Your task to perform on an android device: turn on airplane mode Image 0: 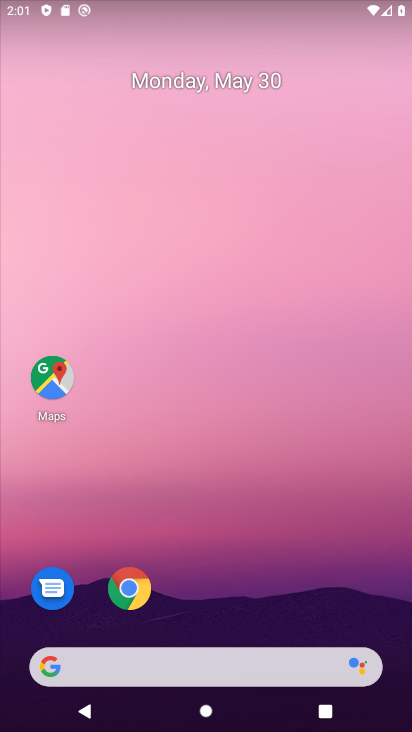
Step 0: drag from (224, 619) to (206, 185)
Your task to perform on an android device: turn on airplane mode Image 1: 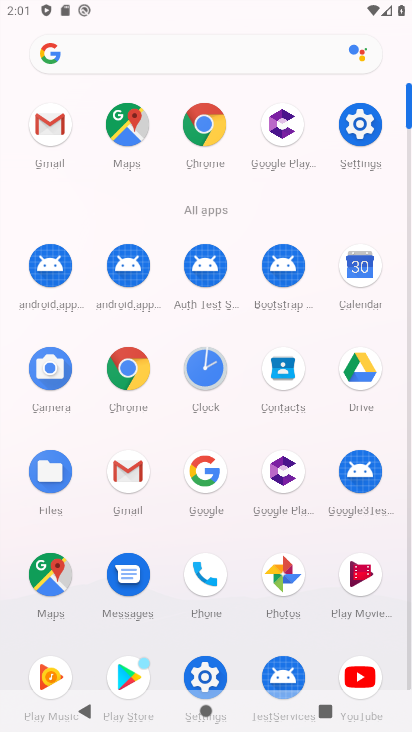
Step 1: click (363, 118)
Your task to perform on an android device: turn on airplane mode Image 2: 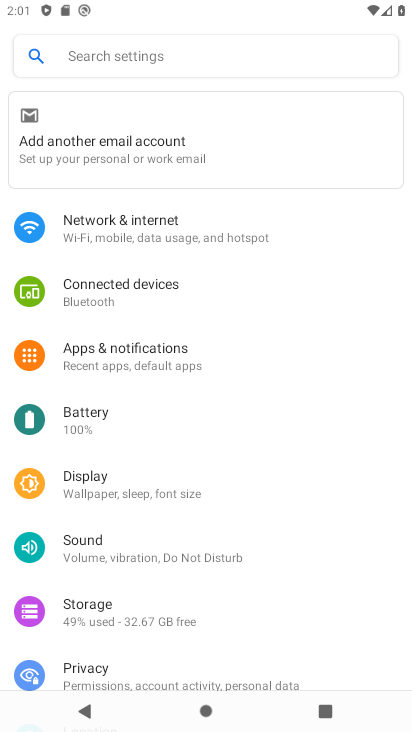
Step 2: click (137, 227)
Your task to perform on an android device: turn on airplane mode Image 3: 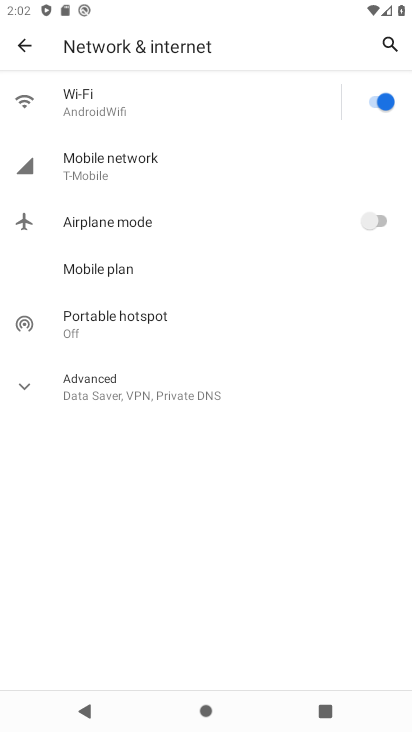
Step 3: click (364, 226)
Your task to perform on an android device: turn on airplane mode Image 4: 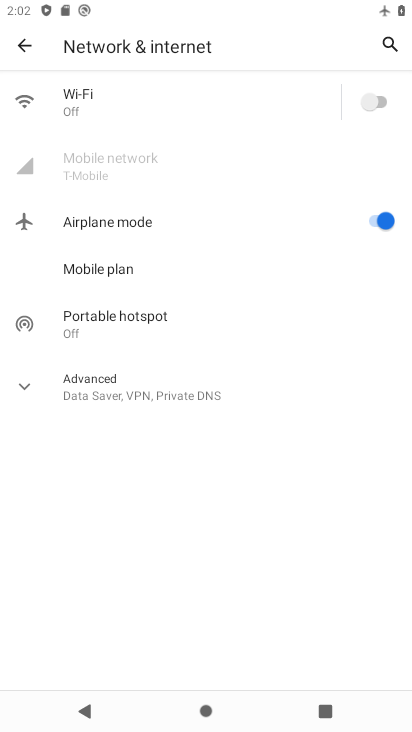
Step 4: task complete